Your task to perform on an android device: Open the calendar app, open the side menu, and click the "Day" option Image 0: 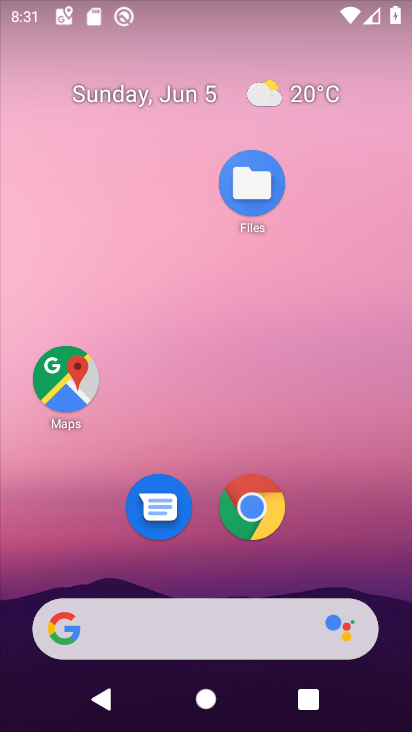
Step 0: drag from (224, 561) to (128, 11)
Your task to perform on an android device: Open the calendar app, open the side menu, and click the "Day" option Image 1: 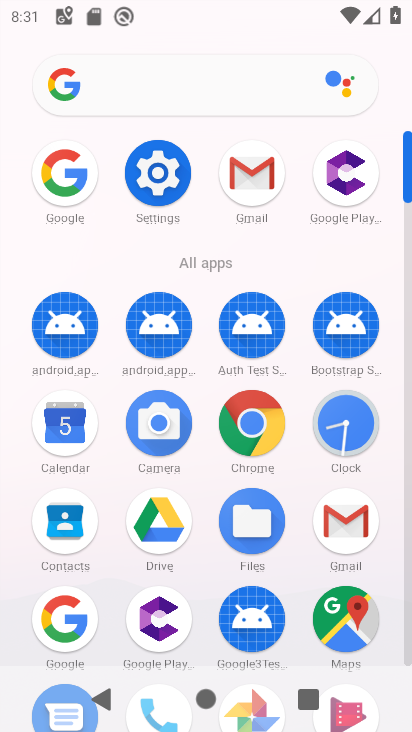
Step 1: click (68, 421)
Your task to perform on an android device: Open the calendar app, open the side menu, and click the "Day" option Image 2: 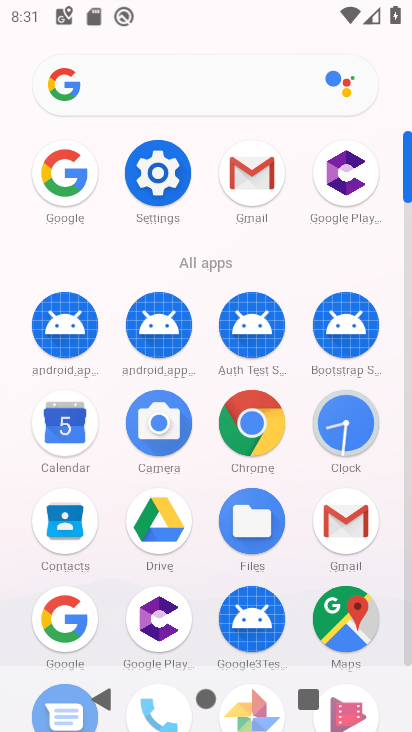
Step 2: click (68, 421)
Your task to perform on an android device: Open the calendar app, open the side menu, and click the "Day" option Image 3: 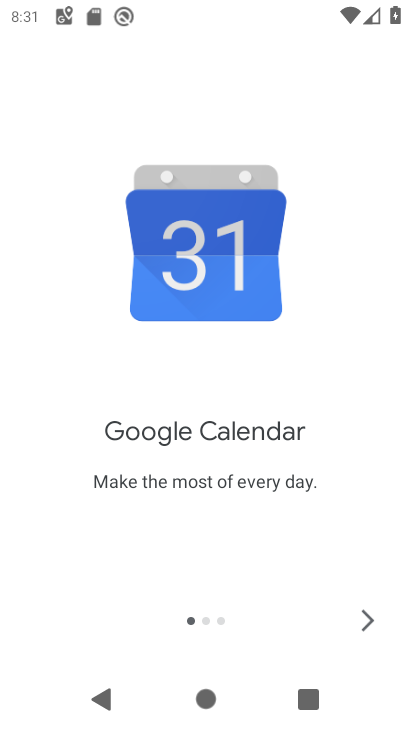
Step 3: click (360, 620)
Your task to perform on an android device: Open the calendar app, open the side menu, and click the "Day" option Image 4: 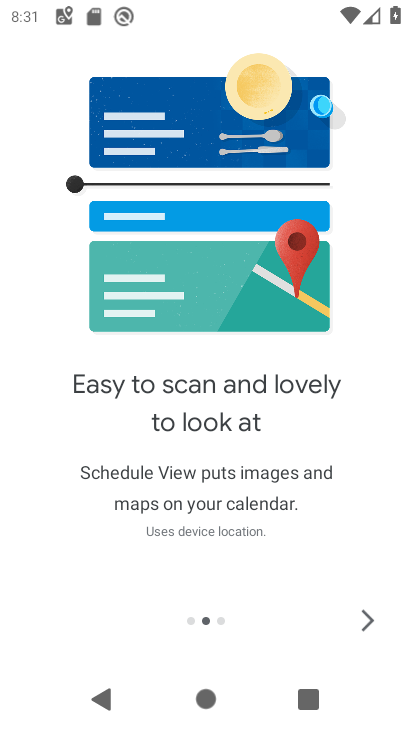
Step 4: click (360, 620)
Your task to perform on an android device: Open the calendar app, open the side menu, and click the "Day" option Image 5: 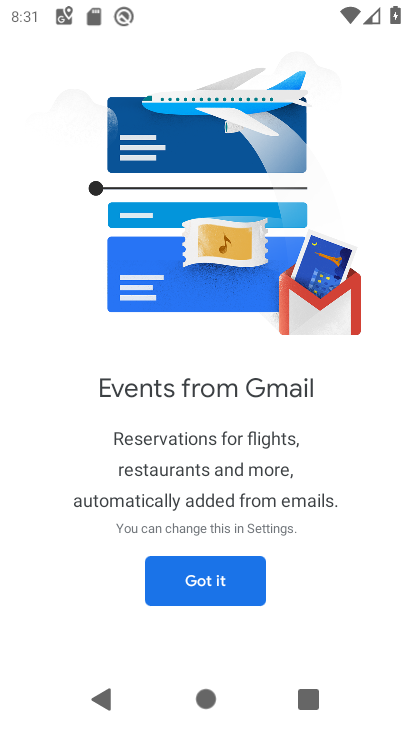
Step 5: click (360, 620)
Your task to perform on an android device: Open the calendar app, open the side menu, and click the "Day" option Image 6: 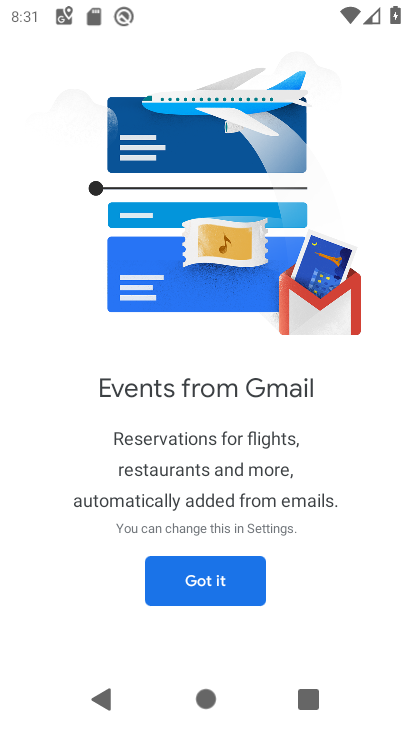
Step 6: click (238, 584)
Your task to perform on an android device: Open the calendar app, open the side menu, and click the "Day" option Image 7: 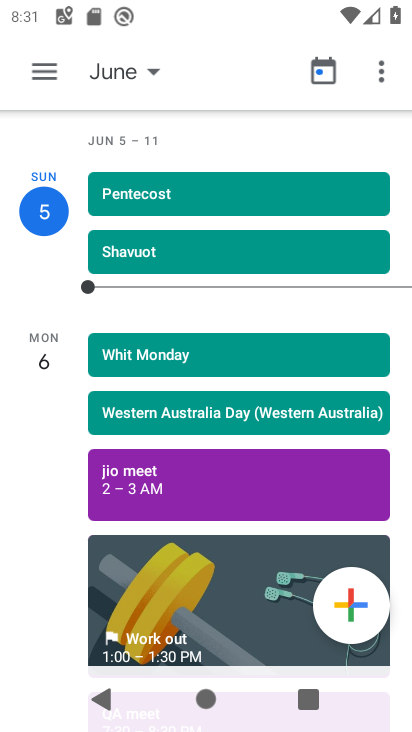
Step 7: click (40, 67)
Your task to perform on an android device: Open the calendar app, open the side menu, and click the "Day" option Image 8: 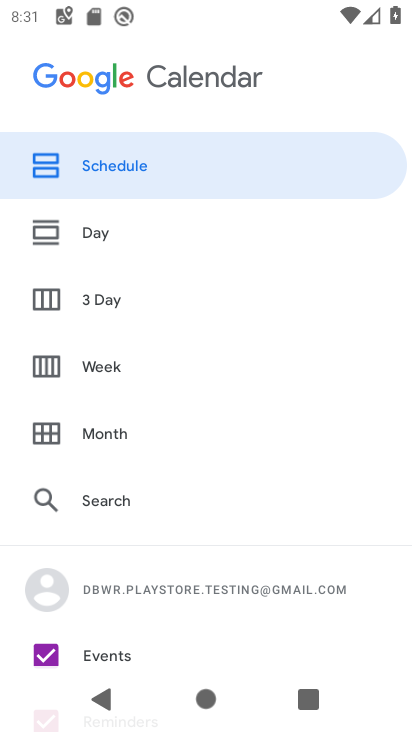
Step 8: click (130, 236)
Your task to perform on an android device: Open the calendar app, open the side menu, and click the "Day" option Image 9: 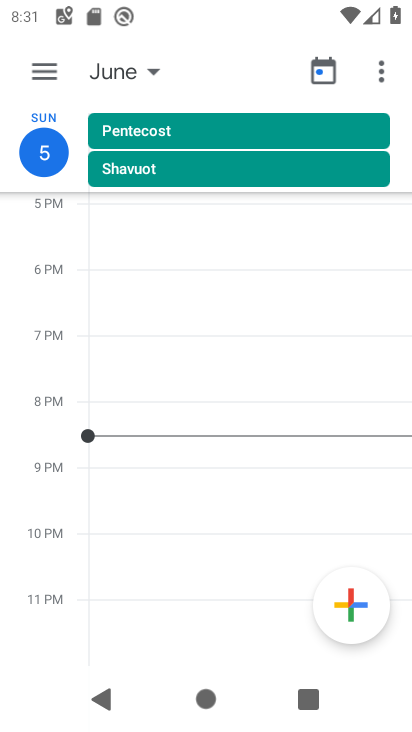
Step 9: task complete